Your task to perform on an android device: delete a single message in the gmail app Image 0: 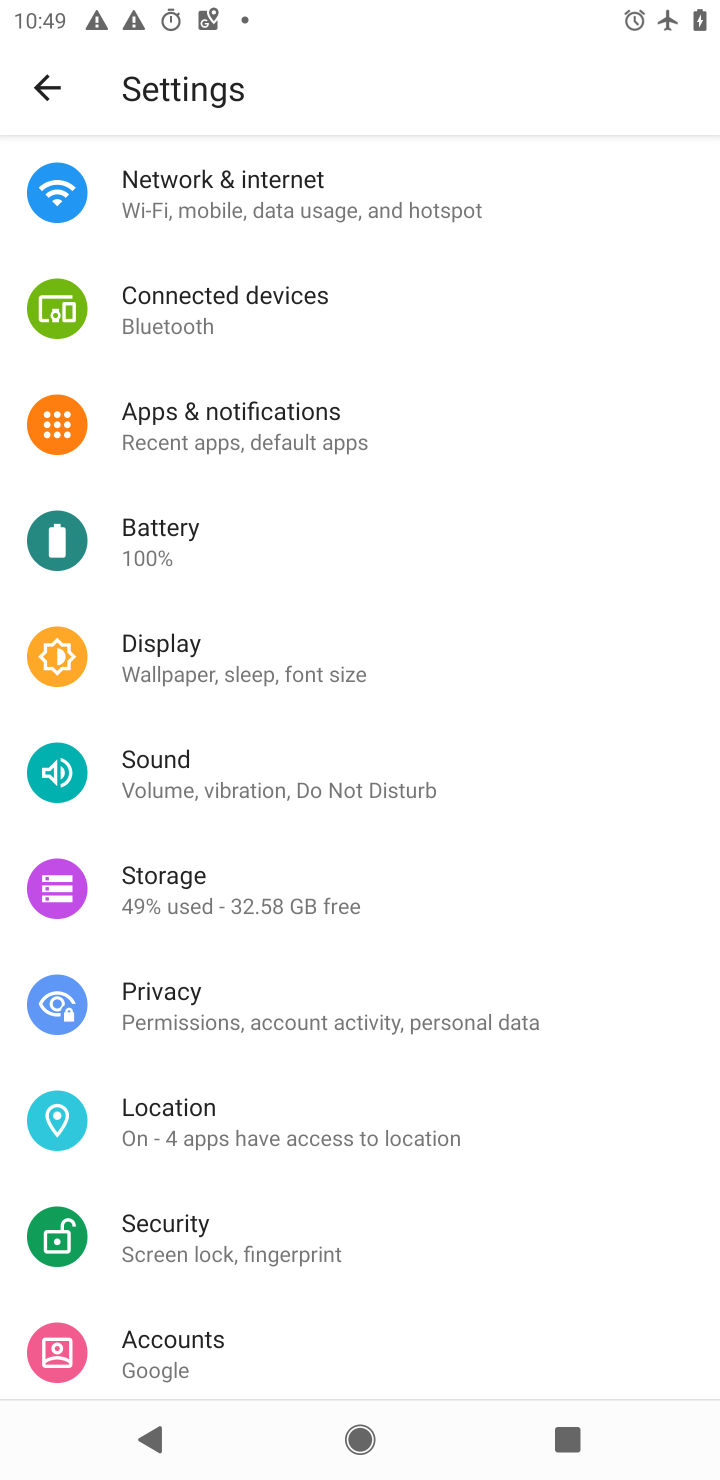
Step 0: press back button
Your task to perform on an android device: delete a single message in the gmail app Image 1: 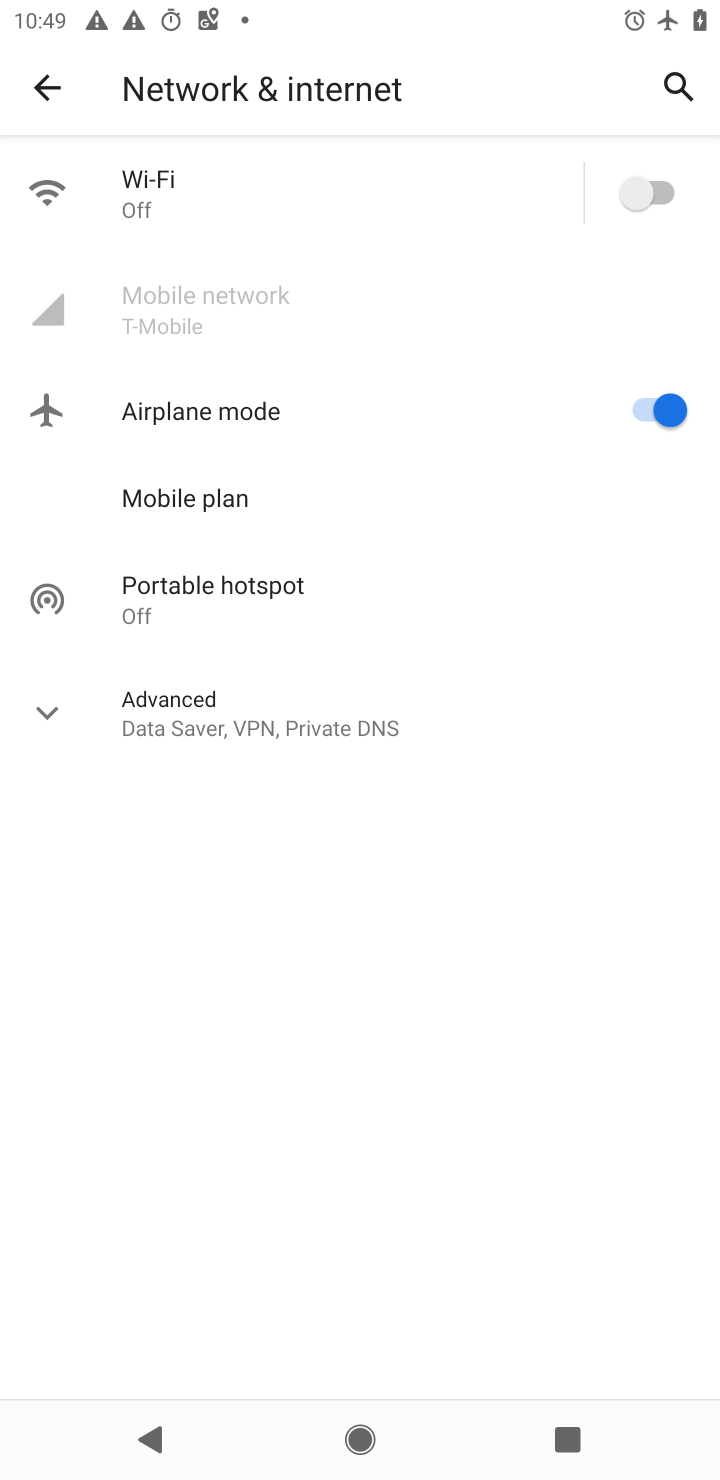
Step 1: press back button
Your task to perform on an android device: delete a single message in the gmail app Image 2: 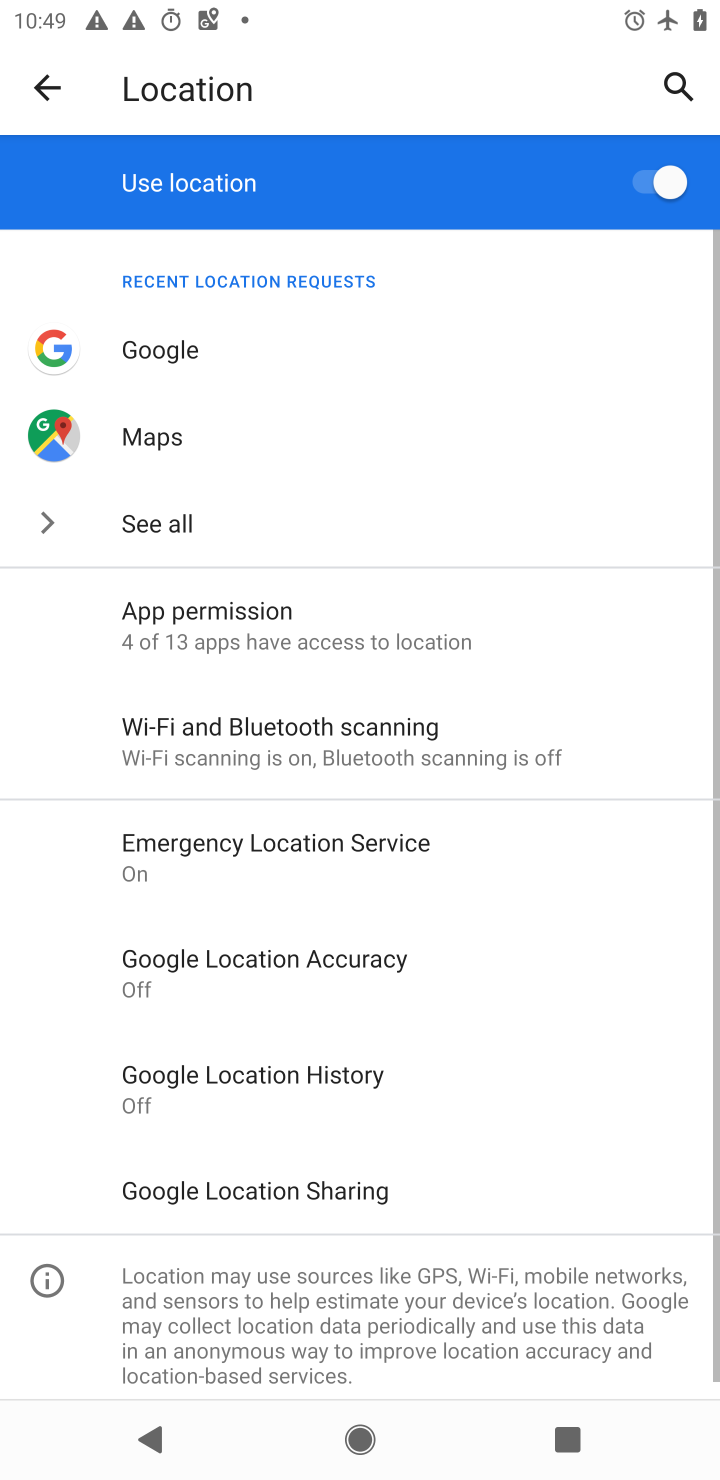
Step 2: press back button
Your task to perform on an android device: delete a single message in the gmail app Image 3: 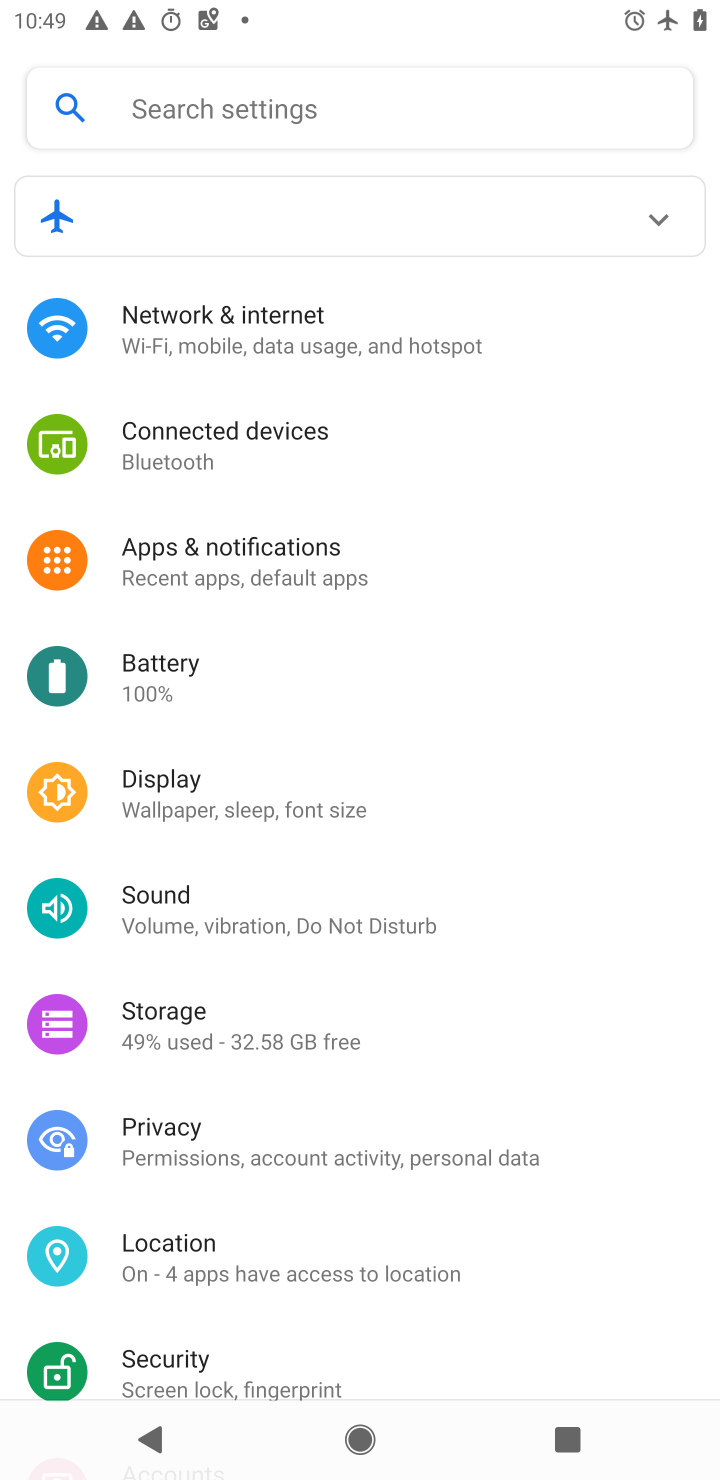
Step 3: press back button
Your task to perform on an android device: delete a single message in the gmail app Image 4: 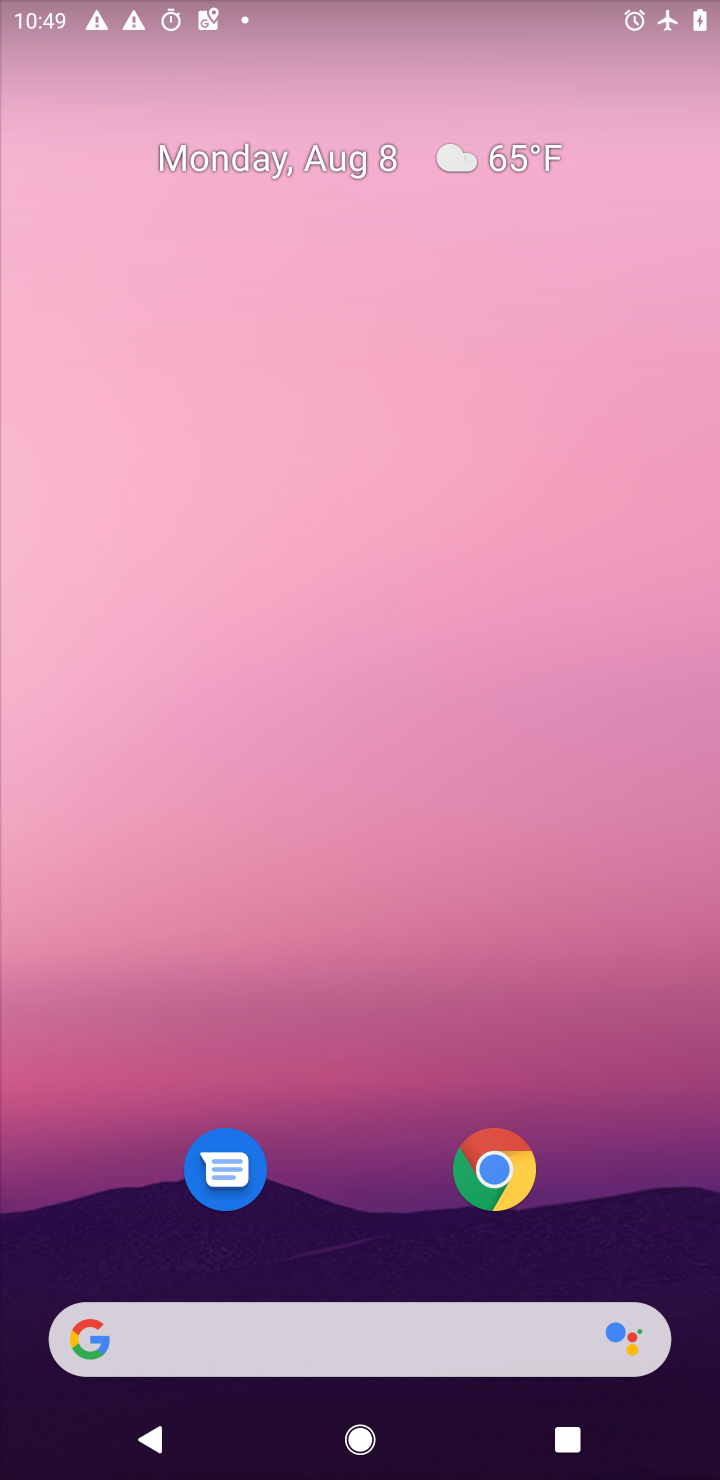
Step 4: drag from (405, 1268) to (551, 44)
Your task to perform on an android device: delete a single message in the gmail app Image 5: 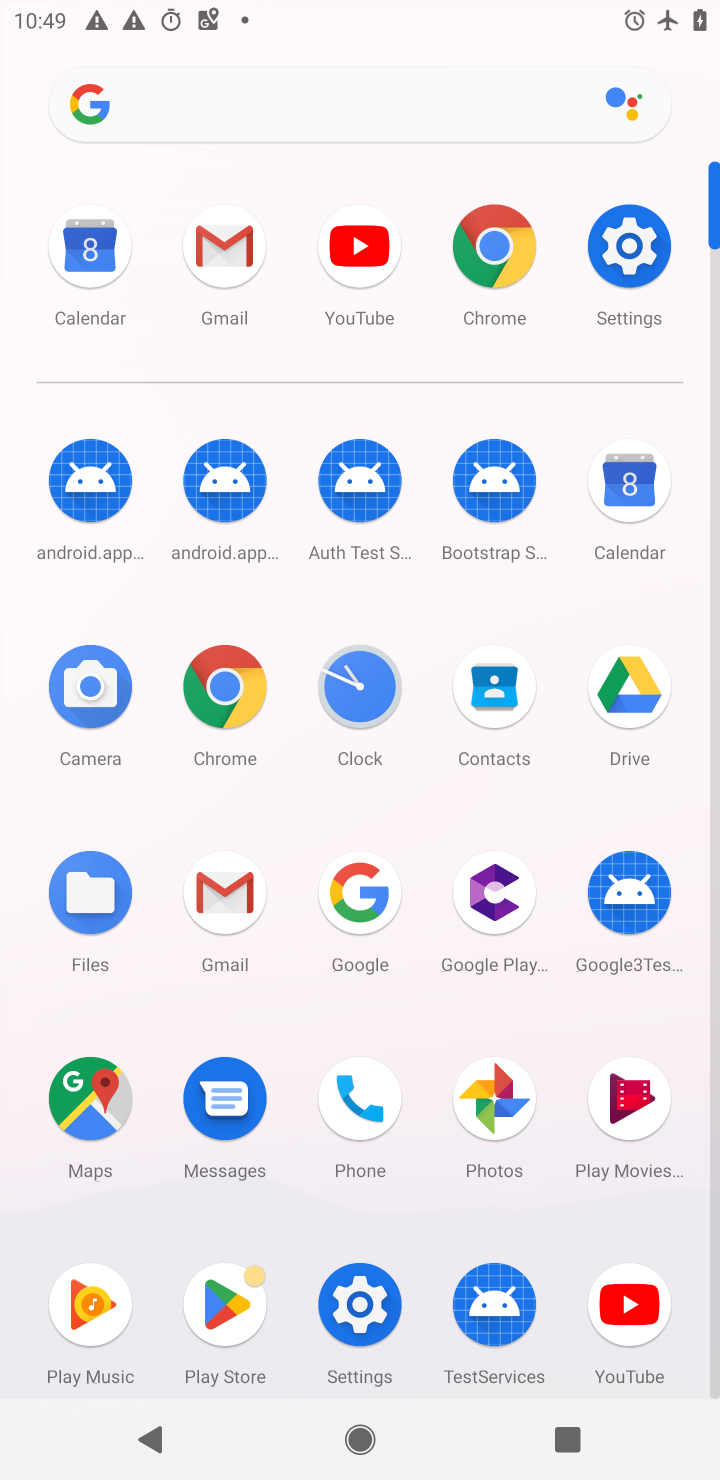
Step 5: click (228, 230)
Your task to perform on an android device: delete a single message in the gmail app Image 6: 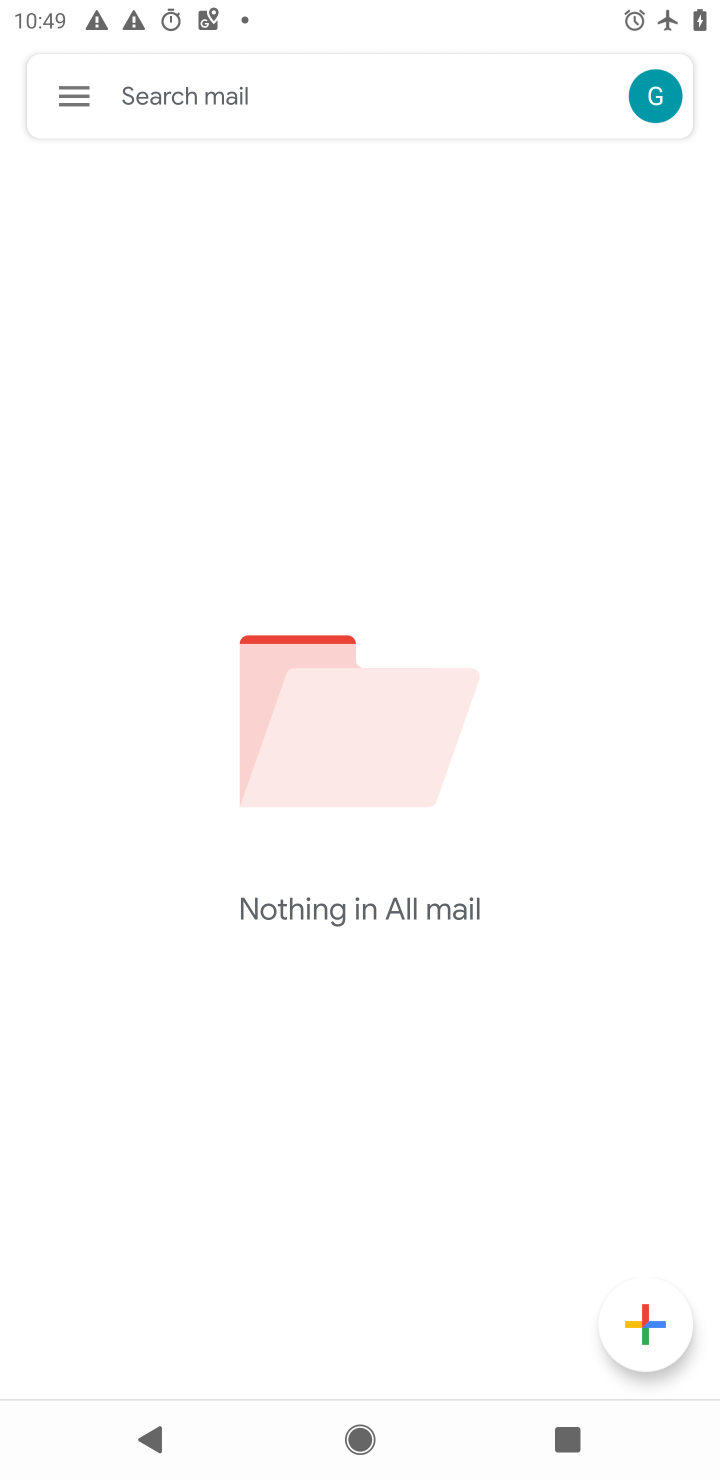
Step 6: click (75, 99)
Your task to perform on an android device: delete a single message in the gmail app Image 7: 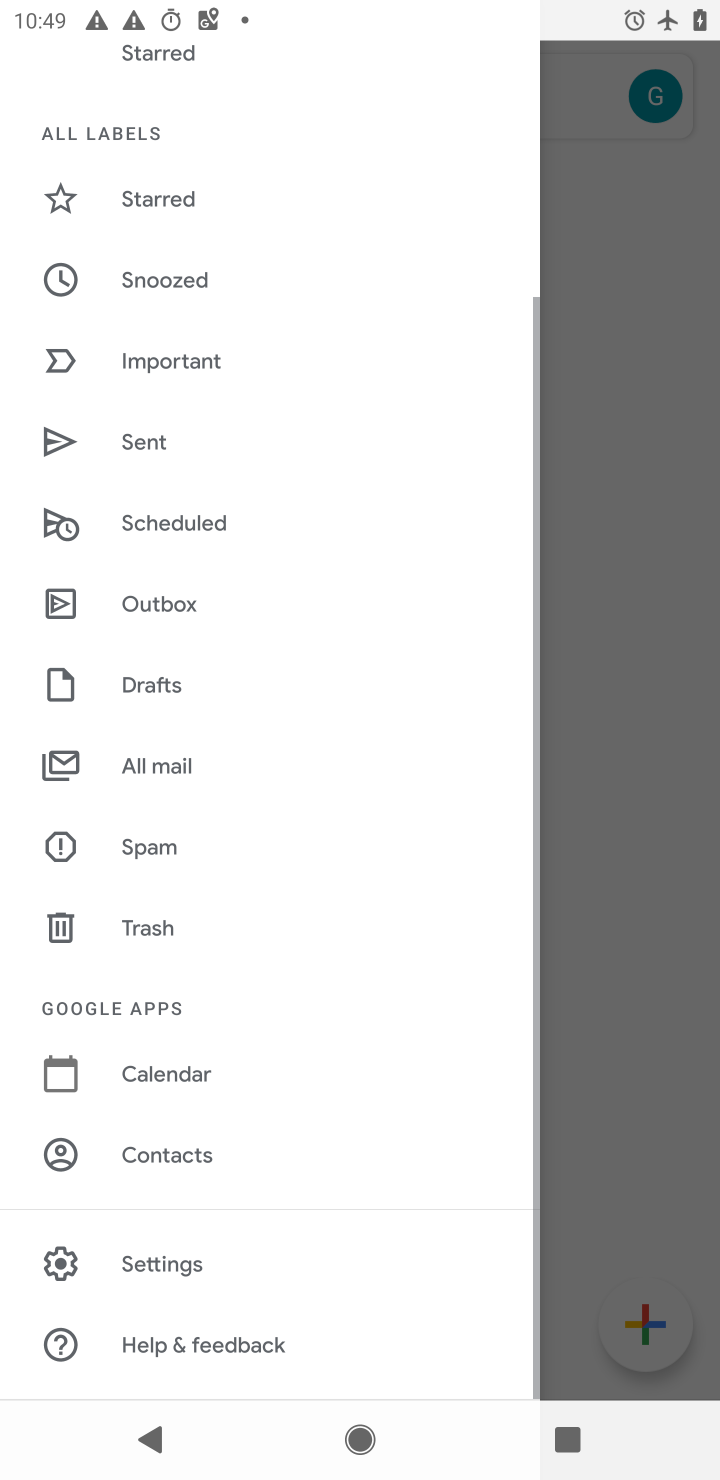
Step 7: click (166, 755)
Your task to perform on an android device: delete a single message in the gmail app Image 8: 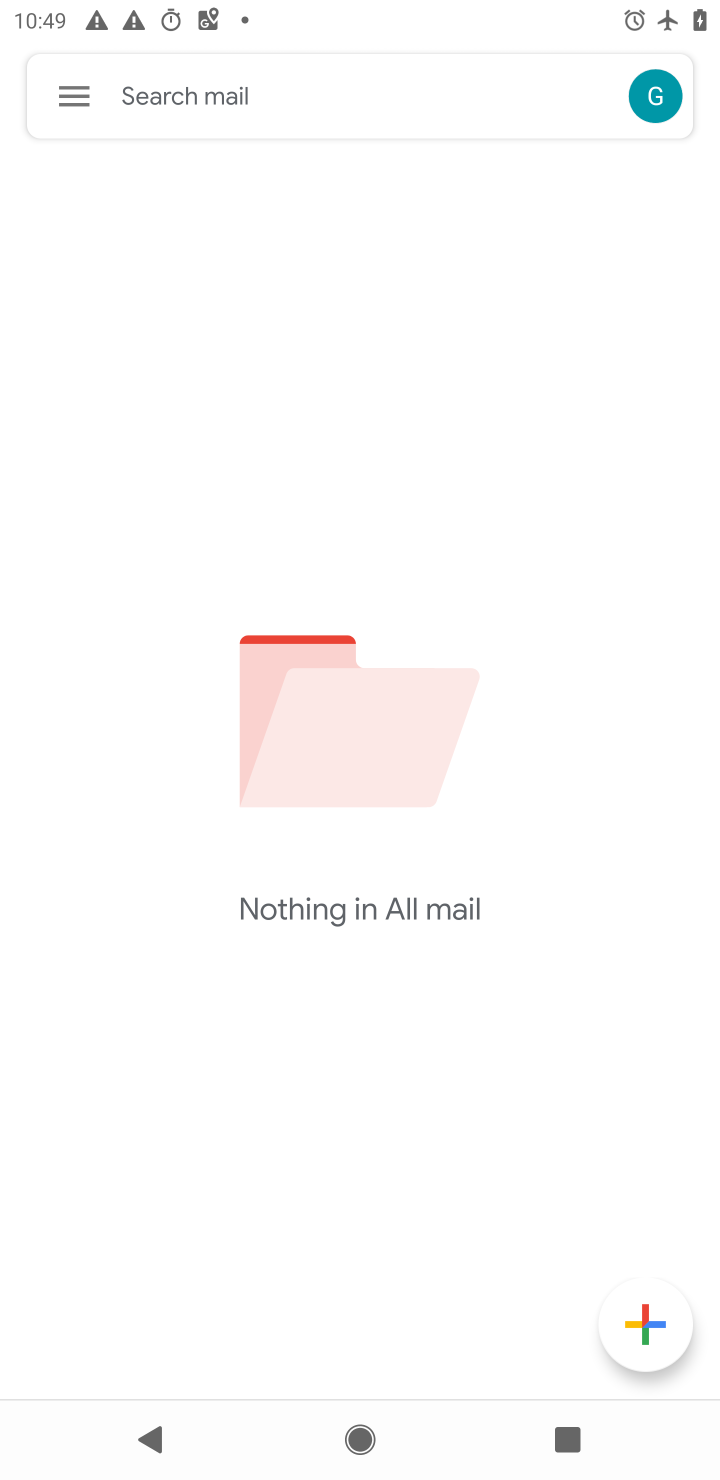
Step 8: task complete